Your task to perform on an android device: turn off wifi Image 0: 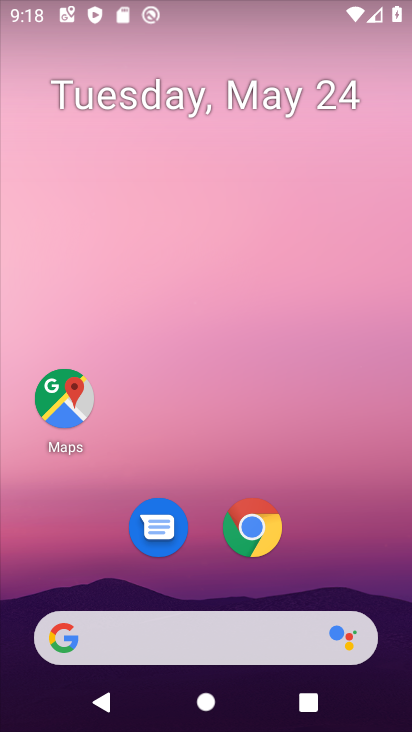
Step 0: drag from (180, 420) to (233, 94)
Your task to perform on an android device: turn off wifi Image 1: 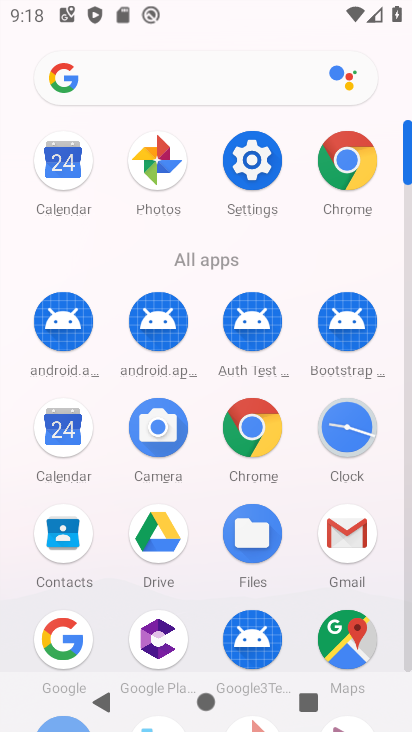
Step 1: click (252, 138)
Your task to perform on an android device: turn off wifi Image 2: 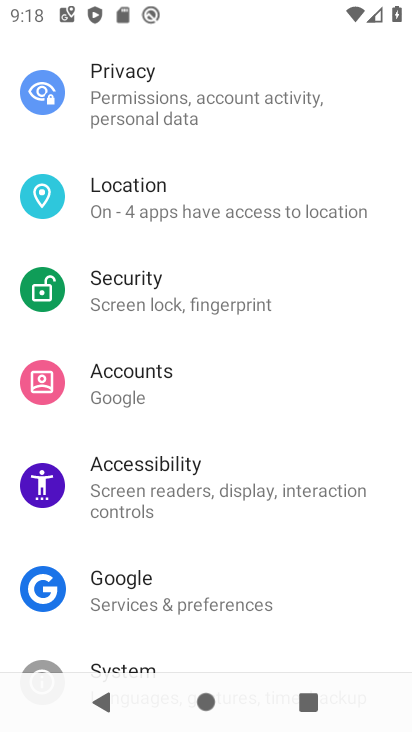
Step 2: drag from (199, 261) to (146, 719)
Your task to perform on an android device: turn off wifi Image 3: 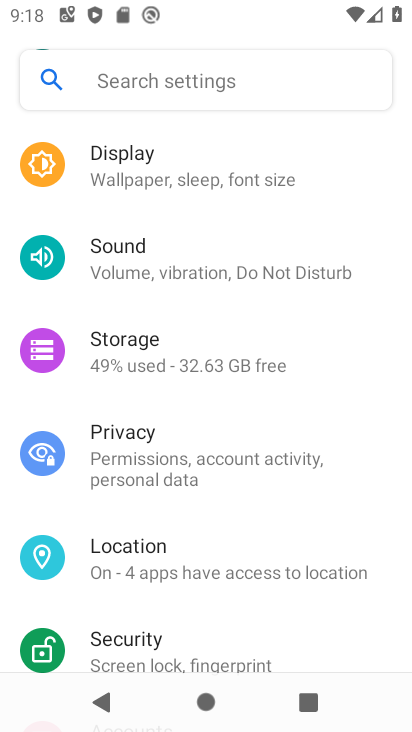
Step 3: drag from (217, 264) to (148, 680)
Your task to perform on an android device: turn off wifi Image 4: 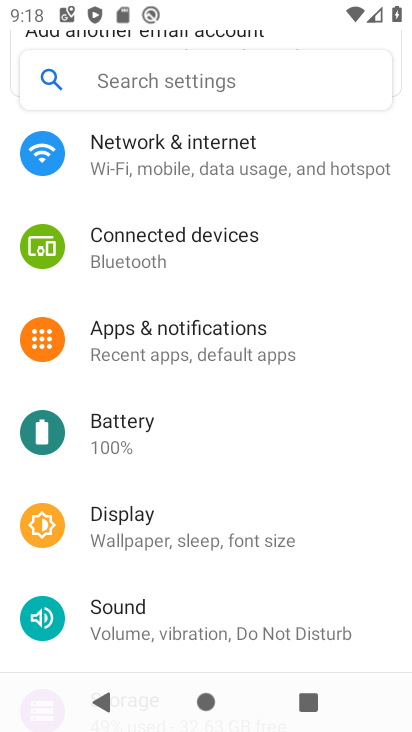
Step 4: drag from (231, 194) to (182, 609)
Your task to perform on an android device: turn off wifi Image 5: 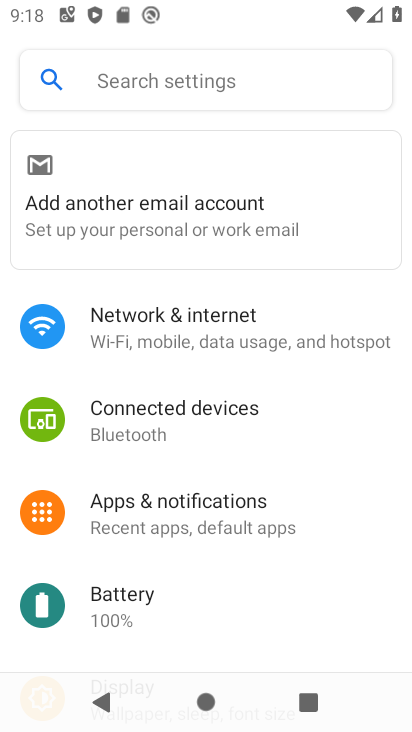
Step 5: click (211, 335)
Your task to perform on an android device: turn off wifi Image 6: 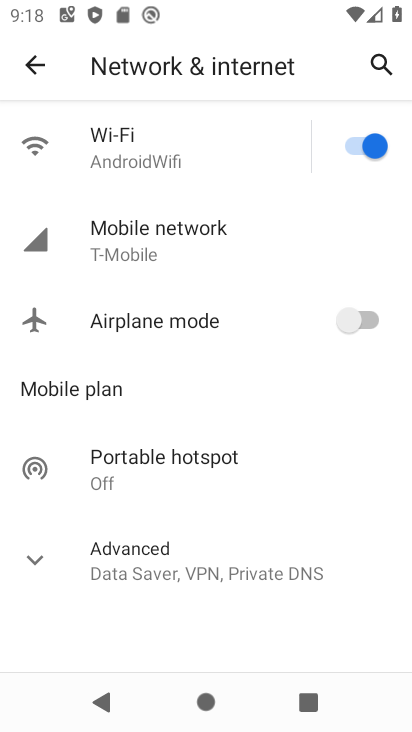
Step 6: click (368, 155)
Your task to perform on an android device: turn off wifi Image 7: 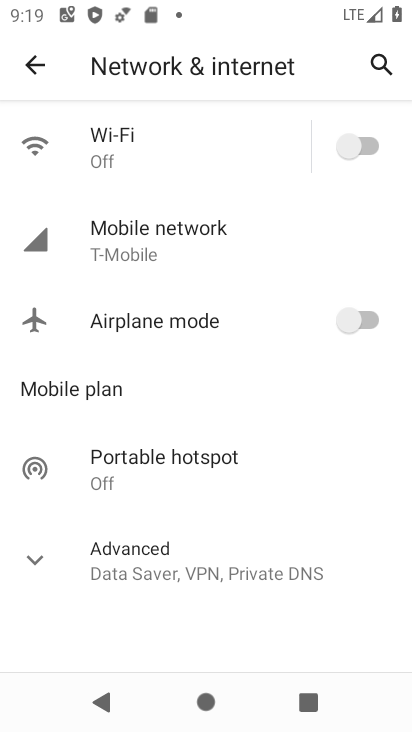
Step 7: task complete